Your task to perform on an android device: Turn off the flashlight Image 0: 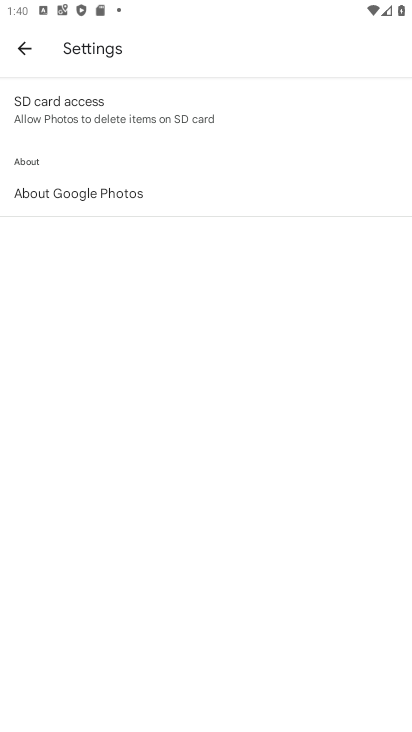
Step 0: press home button
Your task to perform on an android device: Turn off the flashlight Image 1: 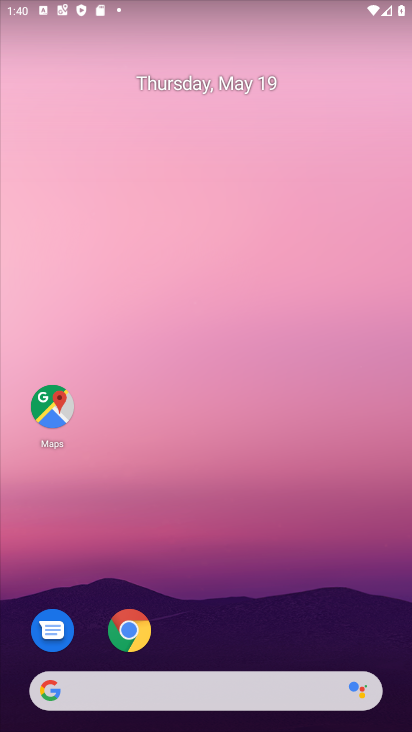
Step 1: drag from (236, 23) to (300, 550)
Your task to perform on an android device: Turn off the flashlight Image 2: 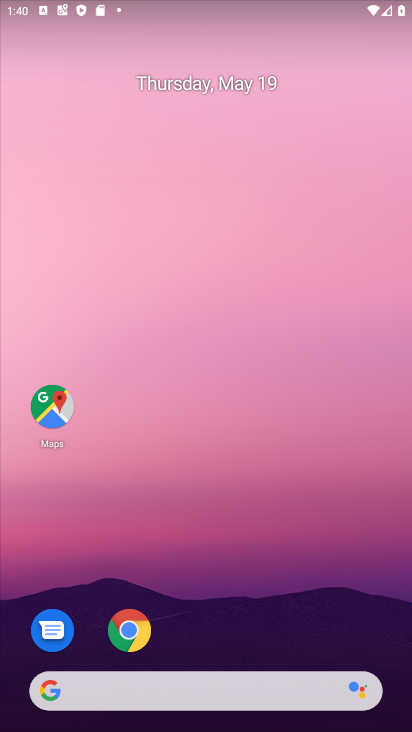
Step 2: drag from (270, 24) to (276, 505)
Your task to perform on an android device: Turn off the flashlight Image 3: 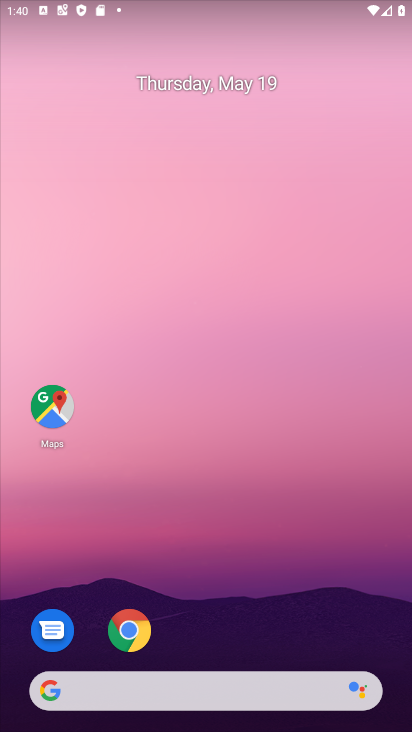
Step 3: drag from (249, 40) to (325, 557)
Your task to perform on an android device: Turn off the flashlight Image 4: 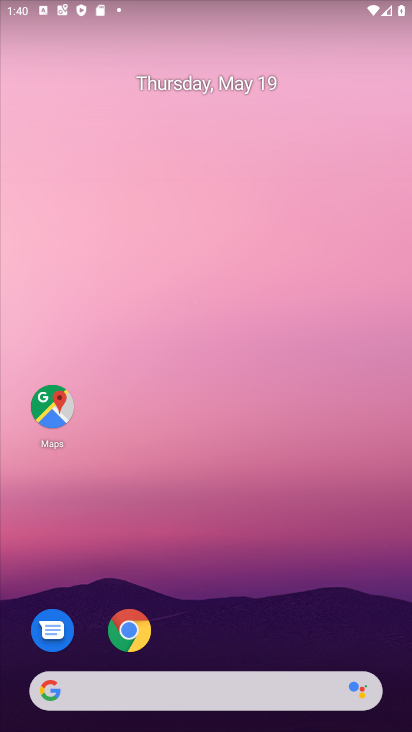
Step 4: click (132, 631)
Your task to perform on an android device: Turn off the flashlight Image 5: 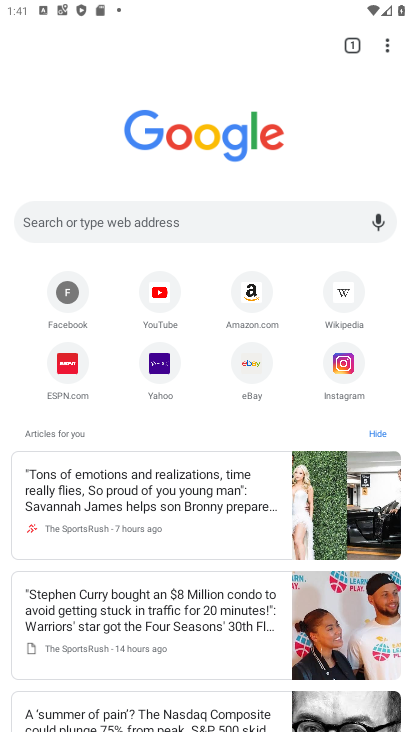
Step 5: press home button
Your task to perform on an android device: Turn off the flashlight Image 6: 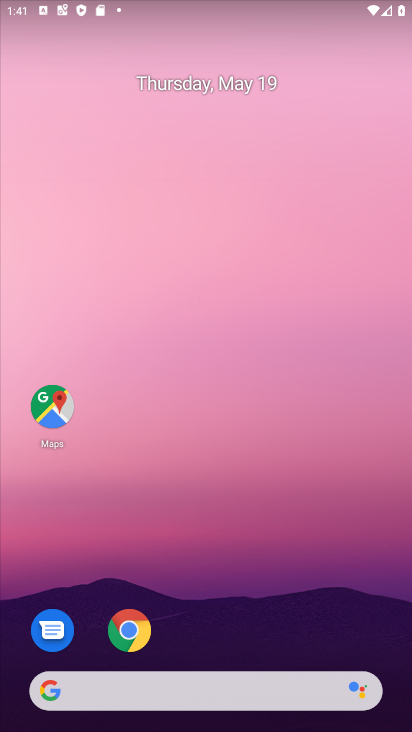
Step 6: drag from (293, 16) to (260, 672)
Your task to perform on an android device: Turn off the flashlight Image 7: 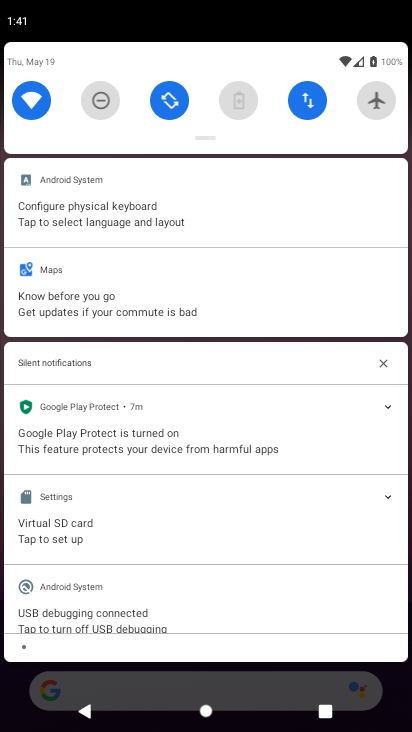
Step 7: drag from (201, 141) to (214, 325)
Your task to perform on an android device: Turn off the flashlight Image 8: 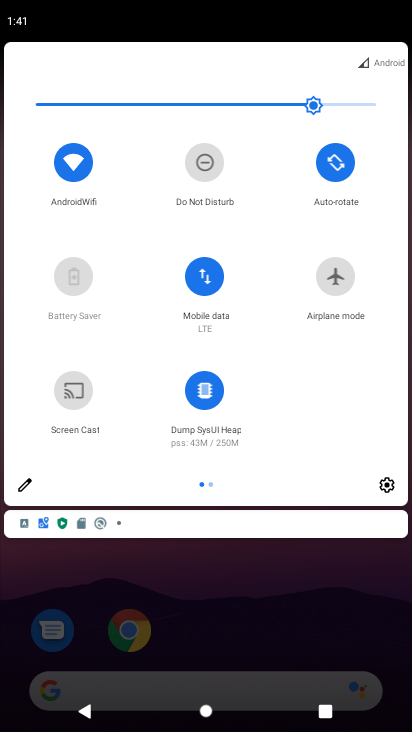
Step 8: click (19, 486)
Your task to perform on an android device: Turn off the flashlight Image 9: 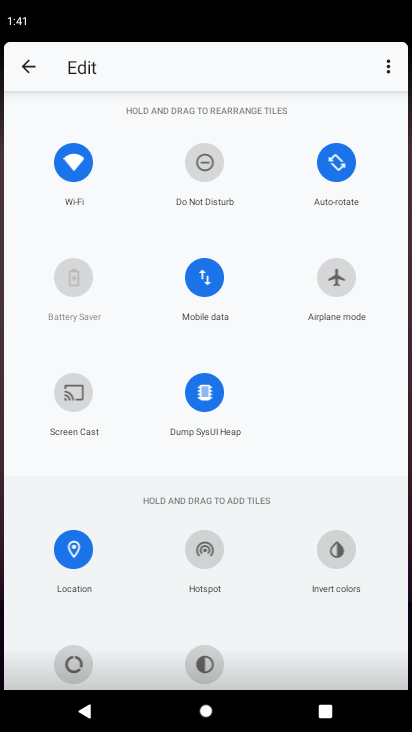
Step 9: task complete